Your task to perform on an android device: Go to battery settings Image 0: 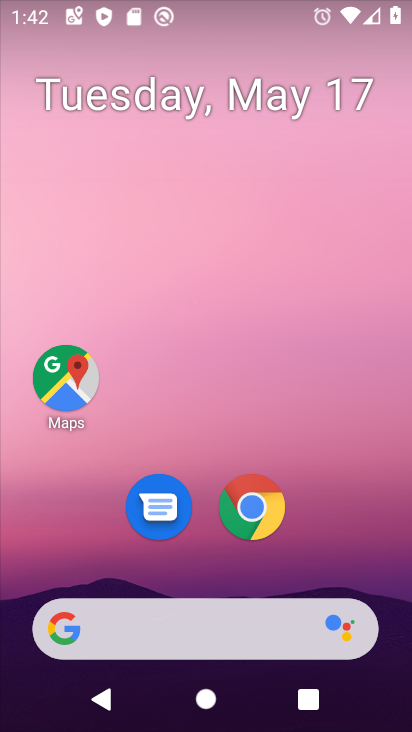
Step 0: drag from (279, 543) to (283, 124)
Your task to perform on an android device: Go to battery settings Image 1: 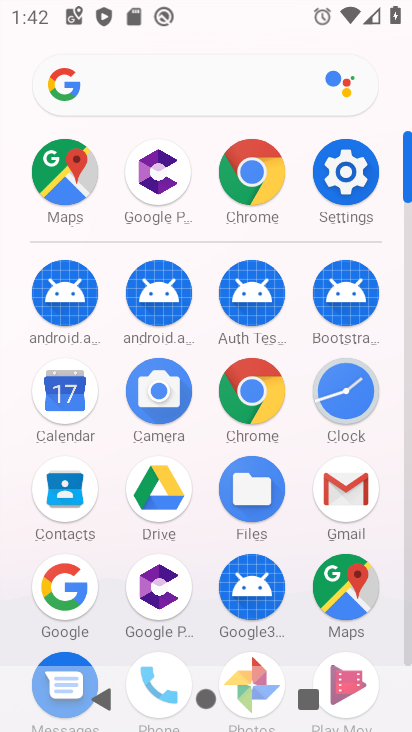
Step 1: click (359, 163)
Your task to perform on an android device: Go to battery settings Image 2: 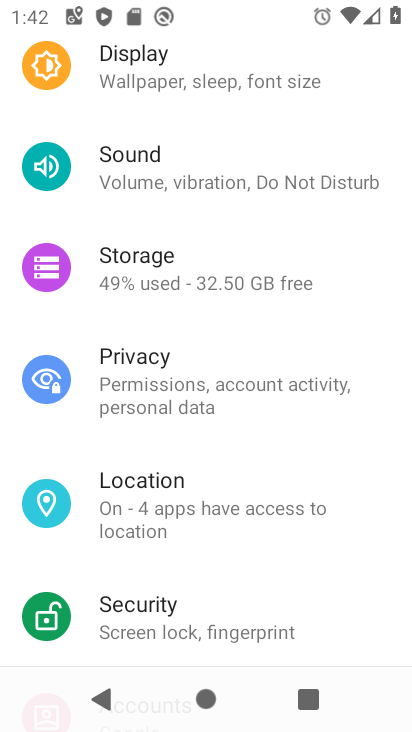
Step 2: drag from (196, 152) to (180, 572)
Your task to perform on an android device: Go to battery settings Image 3: 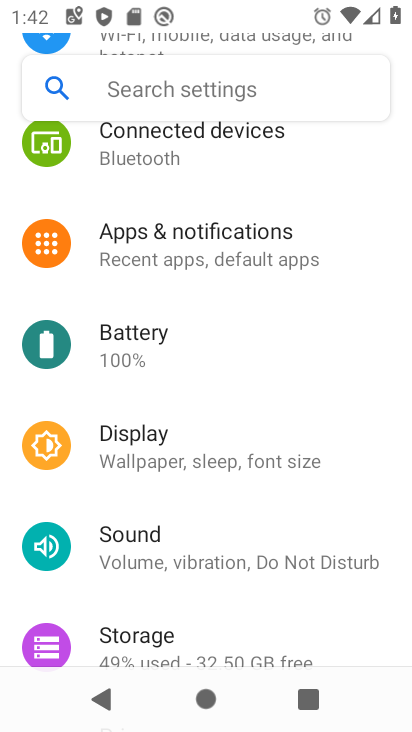
Step 3: click (182, 342)
Your task to perform on an android device: Go to battery settings Image 4: 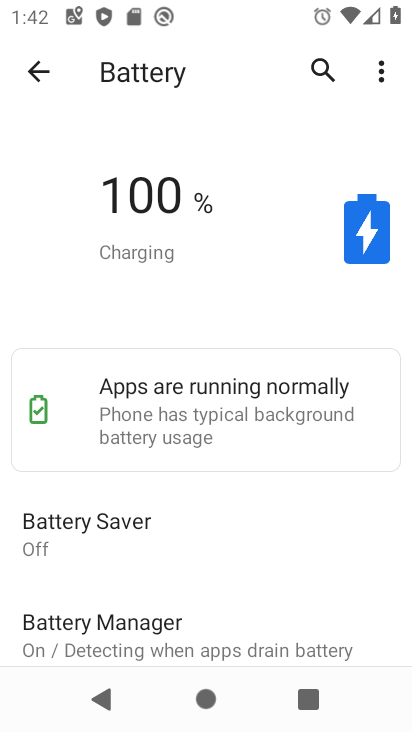
Step 4: click (182, 342)
Your task to perform on an android device: Go to battery settings Image 5: 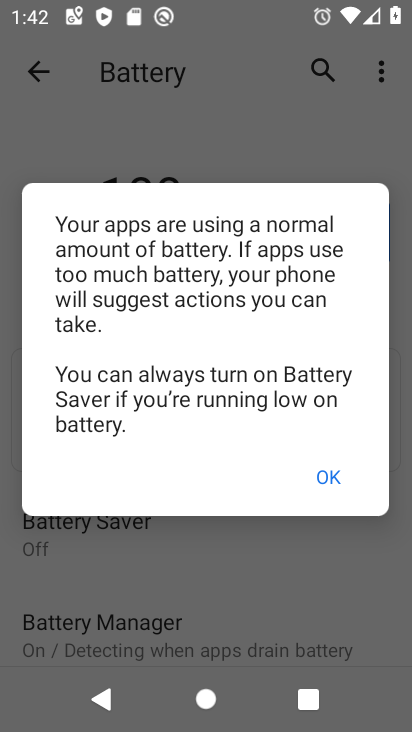
Step 5: click (316, 482)
Your task to perform on an android device: Go to battery settings Image 6: 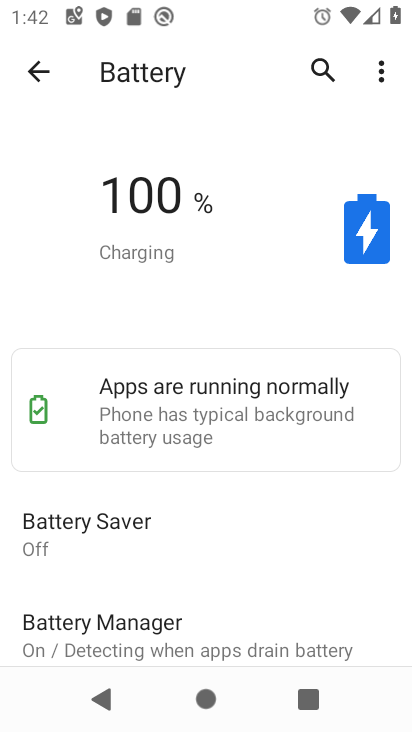
Step 6: task complete